Your task to perform on an android device: toggle notification dots Image 0: 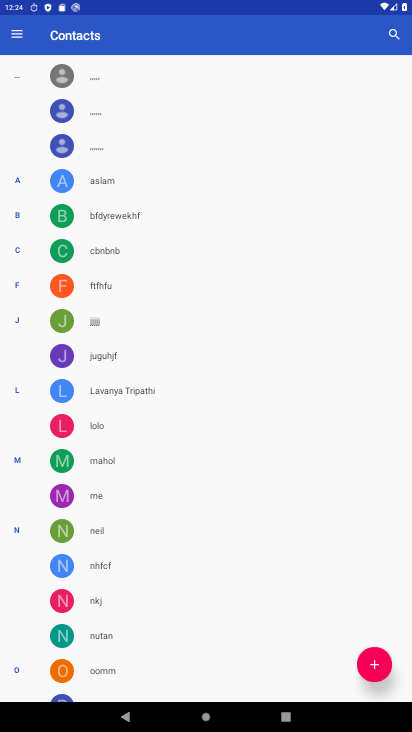
Step 0: press home button
Your task to perform on an android device: toggle notification dots Image 1: 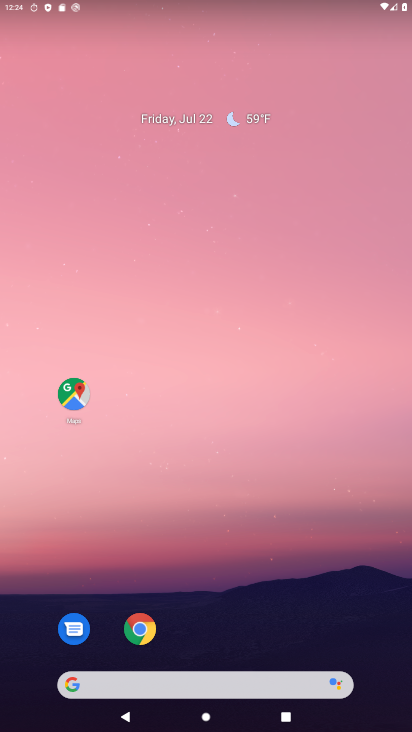
Step 1: drag from (238, 689) to (267, 143)
Your task to perform on an android device: toggle notification dots Image 2: 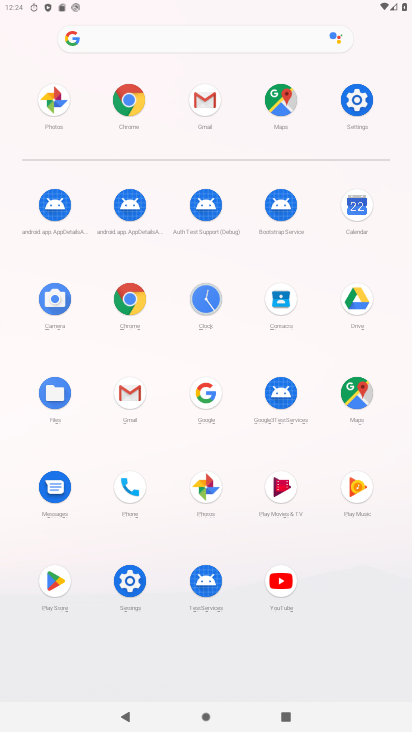
Step 2: click (360, 108)
Your task to perform on an android device: toggle notification dots Image 3: 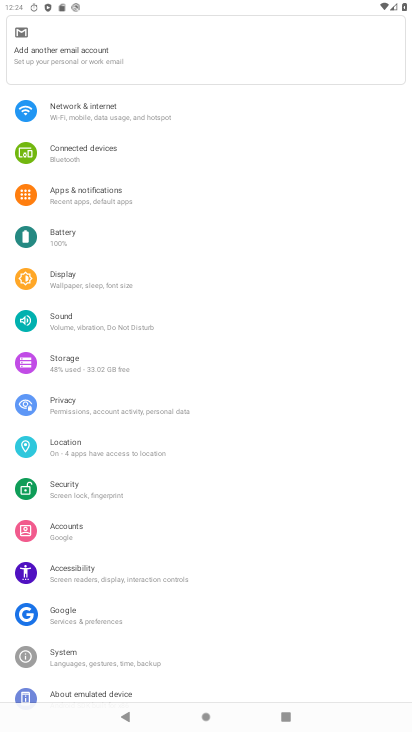
Step 3: click (133, 186)
Your task to perform on an android device: toggle notification dots Image 4: 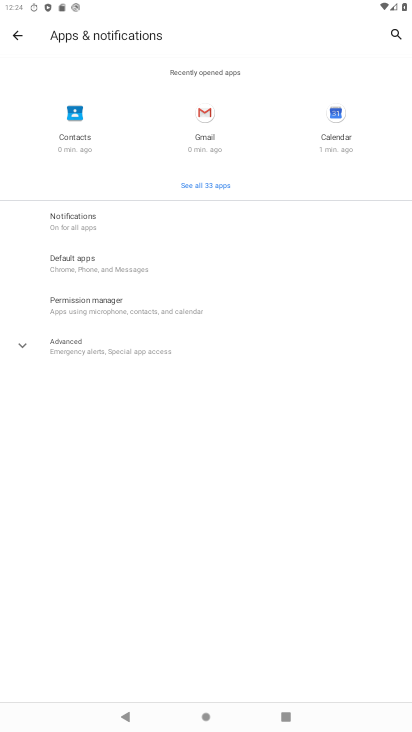
Step 4: click (99, 219)
Your task to perform on an android device: toggle notification dots Image 5: 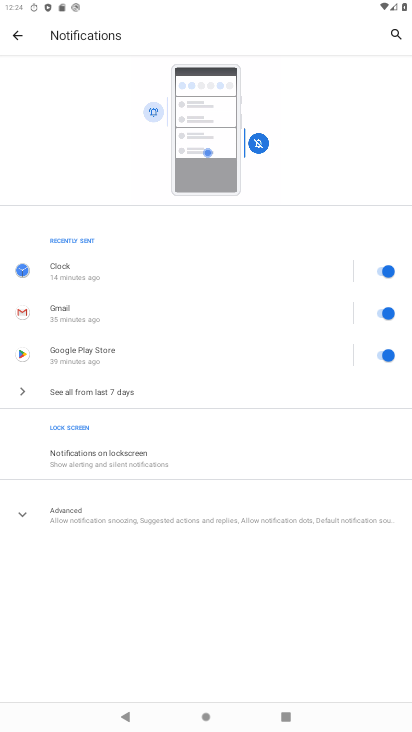
Step 5: click (116, 517)
Your task to perform on an android device: toggle notification dots Image 6: 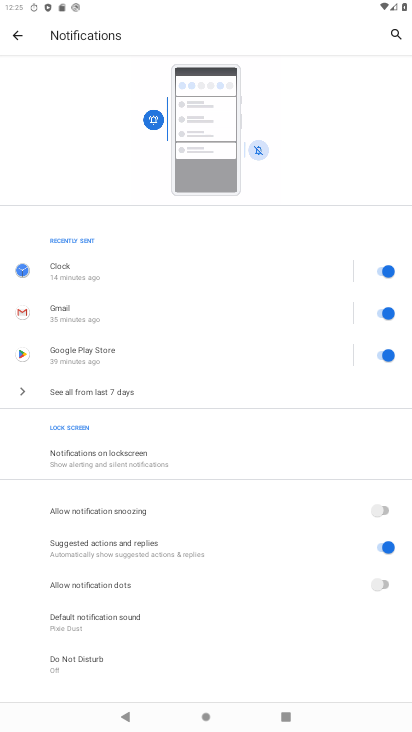
Step 6: click (392, 586)
Your task to perform on an android device: toggle notification dots Image 7: 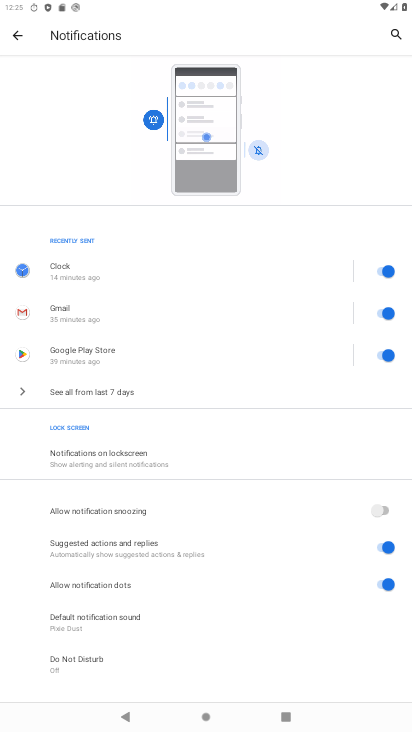
Step 7: task complete